Your task to perform on an android device: open chrome privacy settings Image 0: 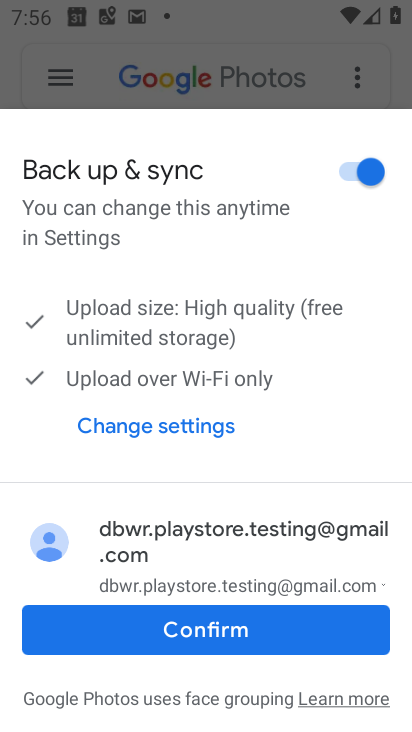
Step 0: press home button
Your task to perform on an android device: open chrome privacy settings Image 1: 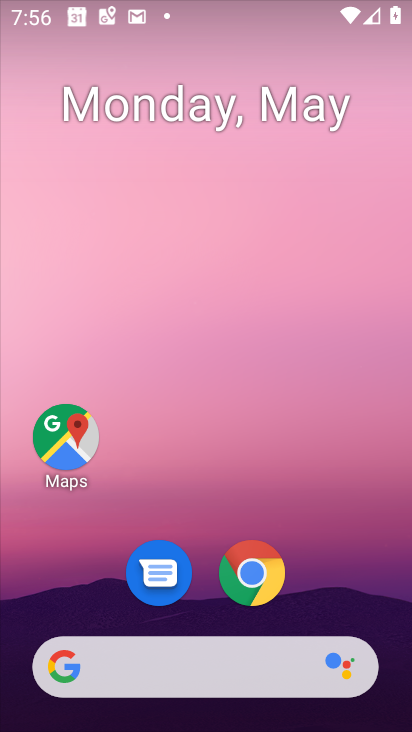
Step 1: drag from (272, 675) to (257, 194)
Your task to perform on an android device: open chrome privacy settings Image 2: 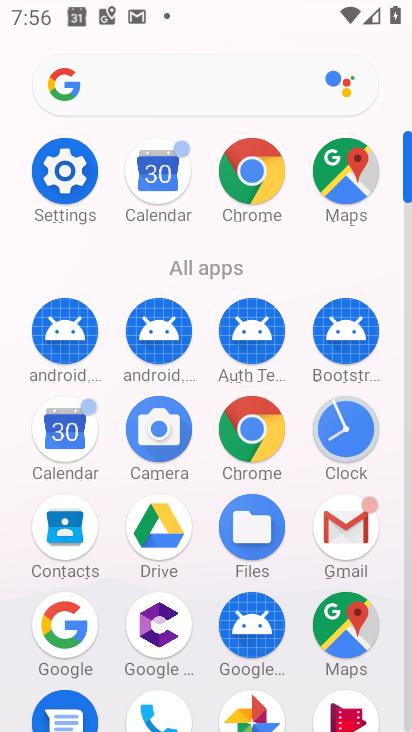
Step 2: click (258, 164)
Your task to perform on an android device: open chrome privacy settings Image 3: 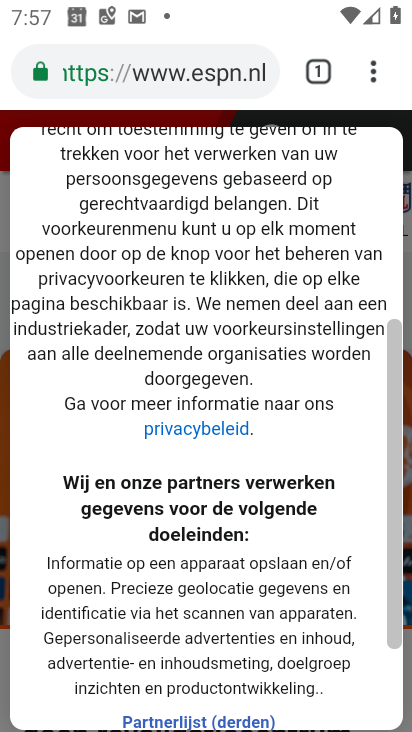
Step 3: click (384, 64)
Your task to perform on an android device: open chrome privacy settings Image 4: 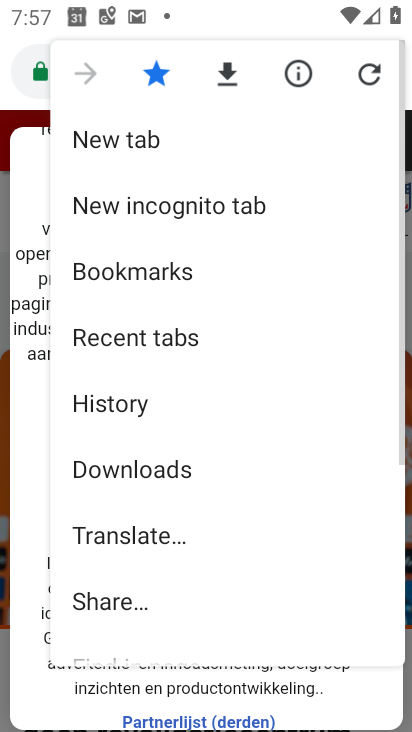
Step 4: drag from (180, 548) to (171, 22)
Your task to perform on an android device: open chrome privacy settings Image 5: 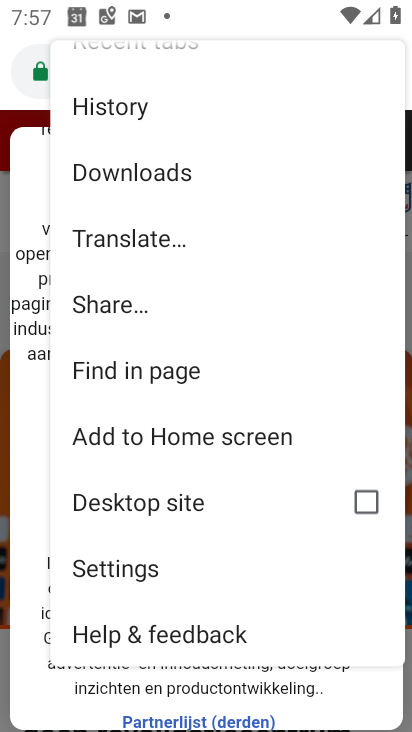
Step 5: click (160, 579)
Your task to perform on an android device: open chrome privacy settings Image 6: 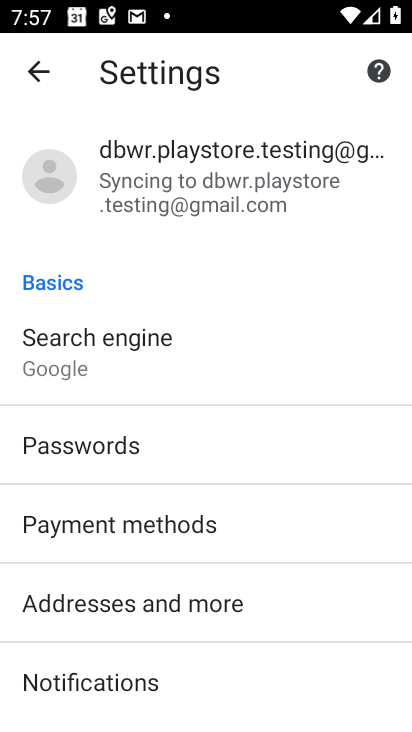
Step 6: drag from (160, 581) to (140, 34)
Your task to perform on an android device: open chrome privacy settings Image 7: 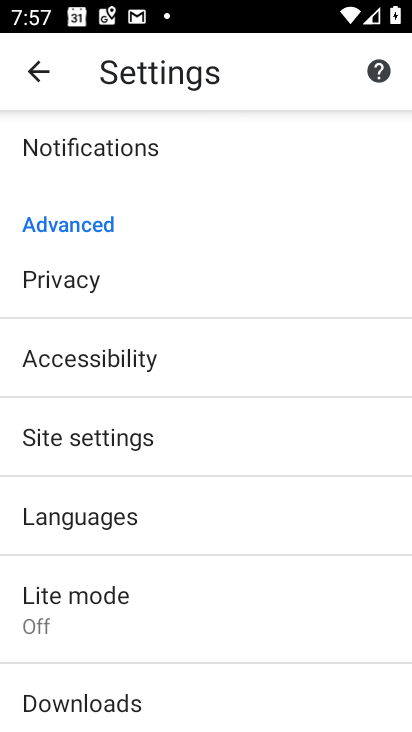
Step 7: click (40, 274)
Your task to perform on an android device: open chrome privacy settings Image 8: 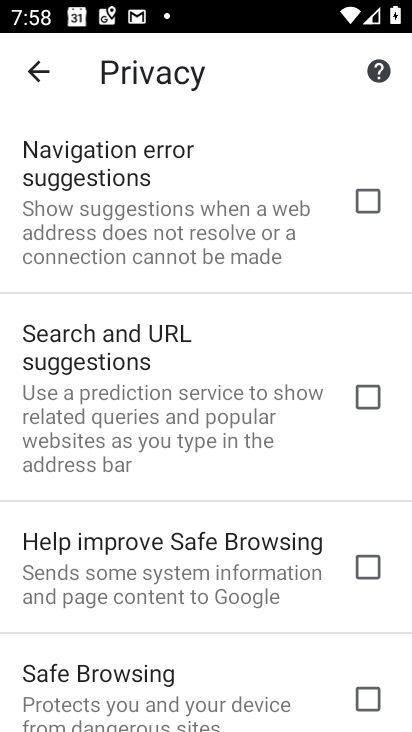
Step 8: task complete